Your task to perform on an android device: Go to Reddit.com Image 0: 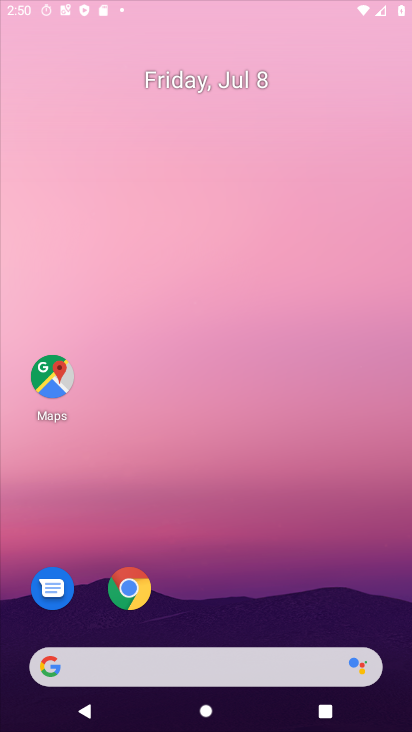
Step 0: press home button
Your task to perform on an android device: Go to Reddit.com Image 1: 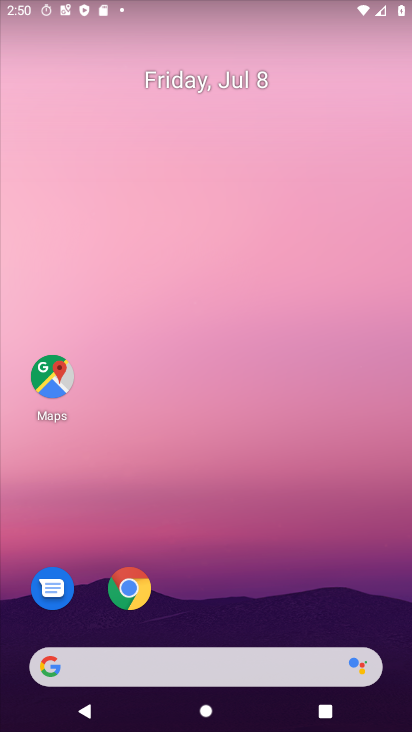
Step 1: click (46, 665)
Your task to perform on an android device: Go to Reddit.com Image 2: 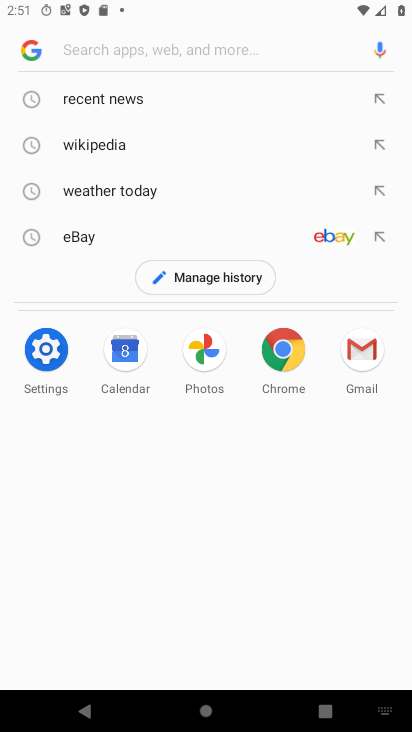
Step 2: type "Reddit.com"
Your task to perform on an android device: Go to Reddit.com Image 3: 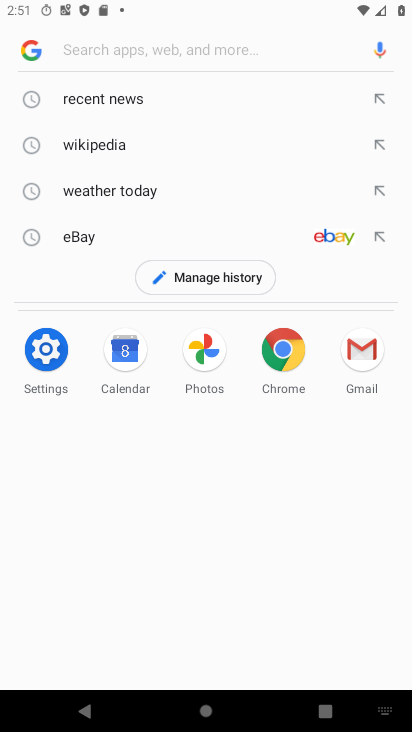
Step 3: click (154, 35)
Your task to perform on an android device: Go to Reddit.com Image 4: 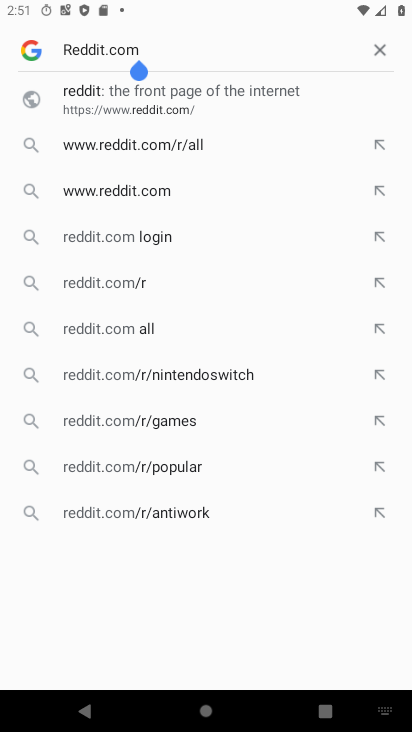
Step 4: click (145, 89)
Your task to perform on an android device: Go to Reddit.com Image 5: 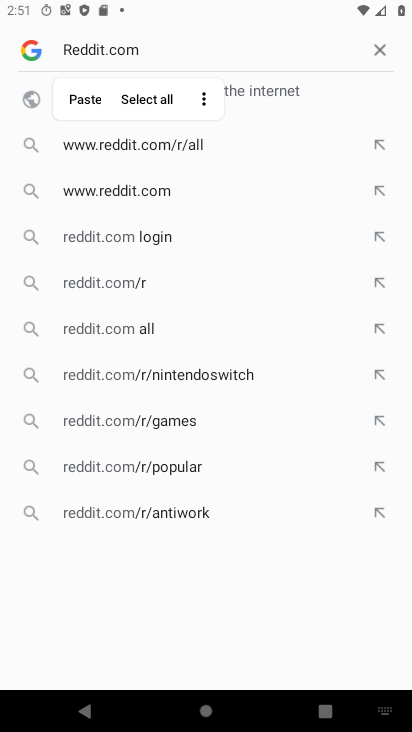
Step 5: click (198, 40)
Your task to perform on an android device: Go to Reddit.com Image 6: 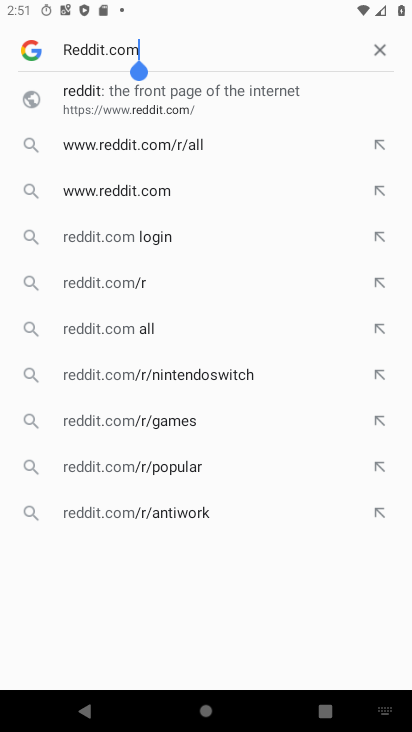
Step 6: click (87, 99)
Your task to perform on an android device: Go to Reddit.com Image 7: 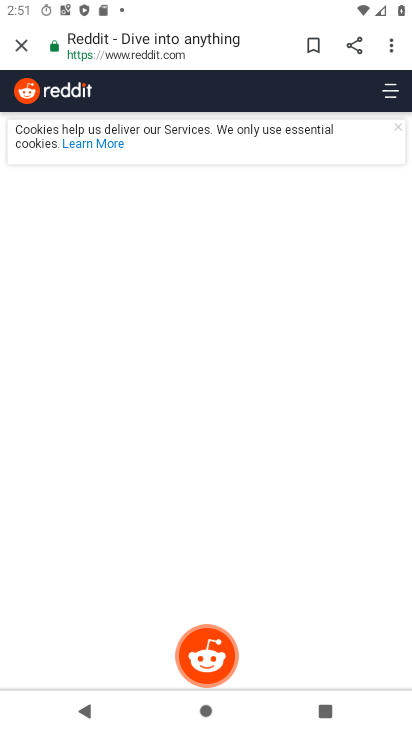
Step 7: task complete